Your task to perform on an android device: Check the weather Image 0: 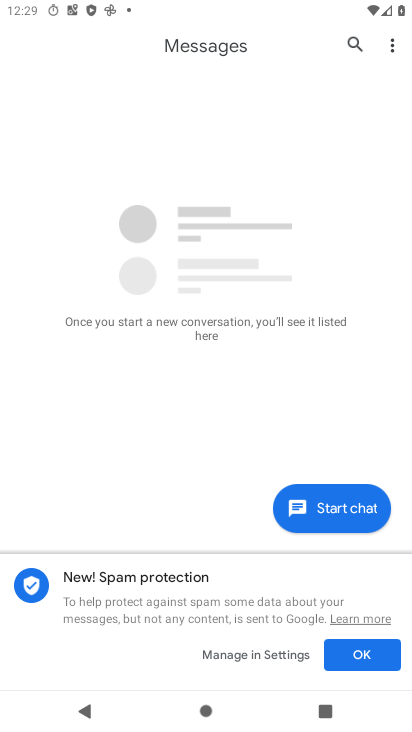
Step 0: press home button
Your task to perform on an android device: Check the weather Image 1: 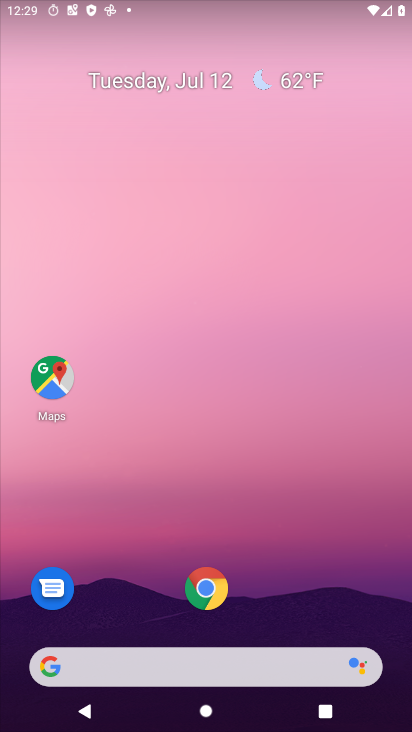
Step 1: drag from (262, 611) to (216, 280)
Your task to perform on an android device: Check the weather Image 2: 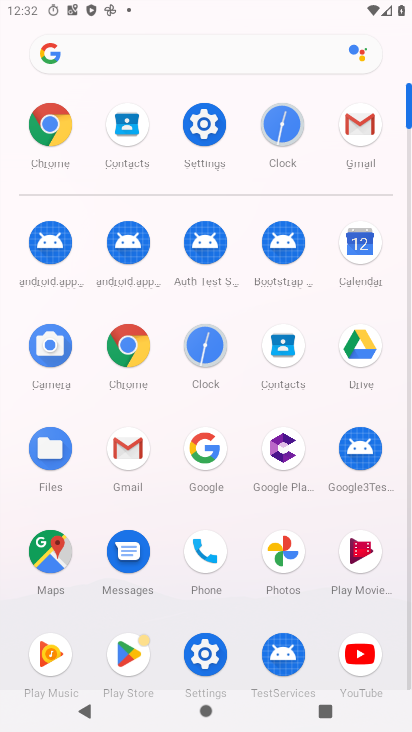
Step 2: click (199, 446)
Your task to perform on an android device: Check the weather Image 3: 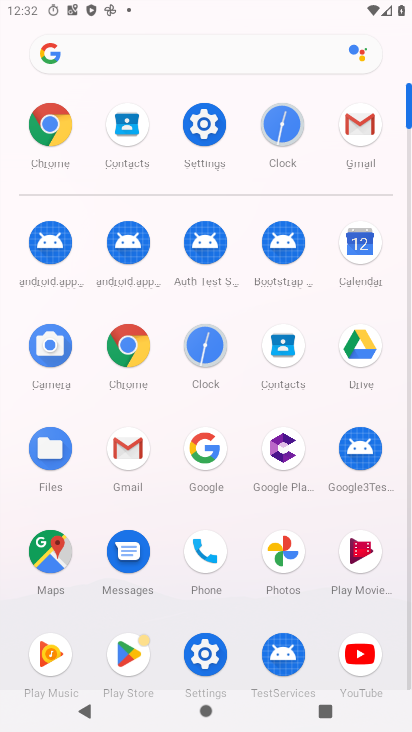
Step 3: click (200, 469)
Your task to perform on an android device: Check the weather Image 4: 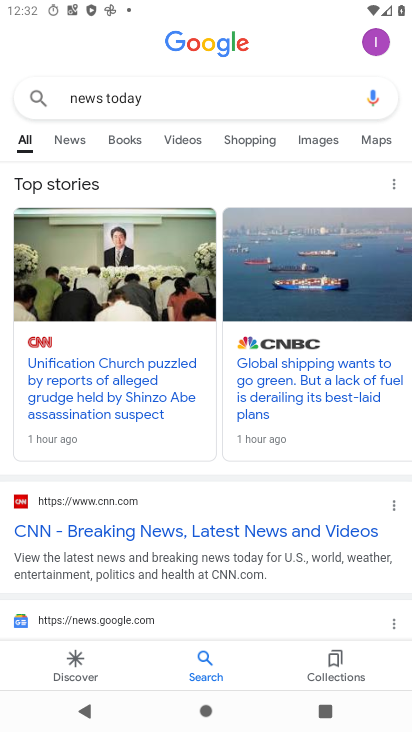
Step 4: click (161, 110)
Your task to perform on an android device: Check the weather Image 5: 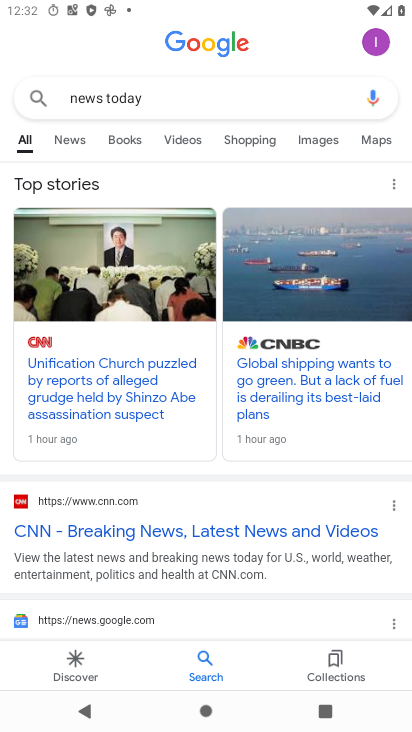
Step 5: click (161, 110)
Your task to perform on an android device: Check the weather Image 6: 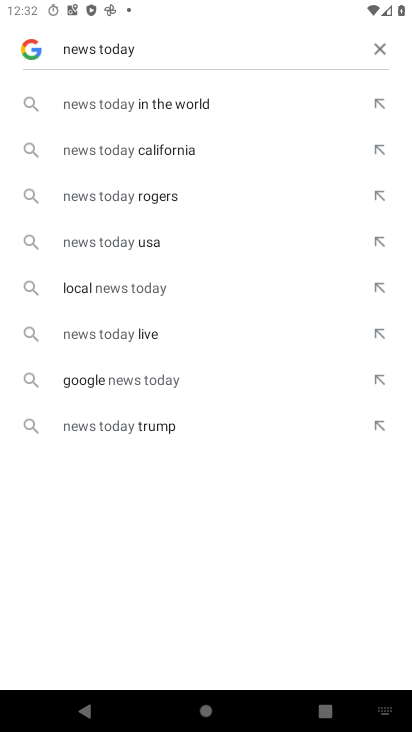
Step 6: click (378, 46)
Your task to perform on an android device: Check the weather Image 7: 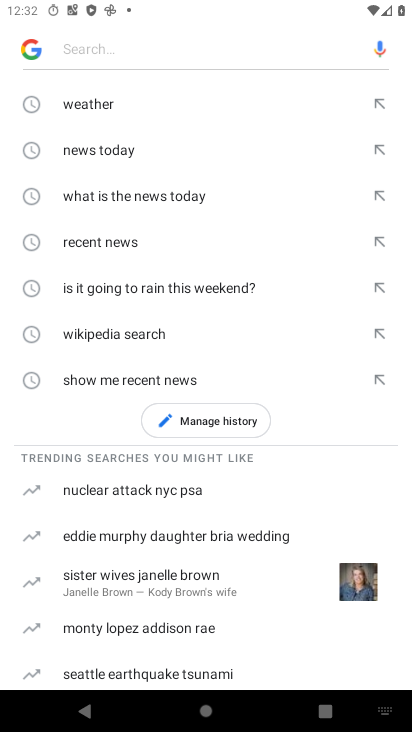
Step 7: click (120, 107)
Your task to perform on an android device: Check the weather Image 8: 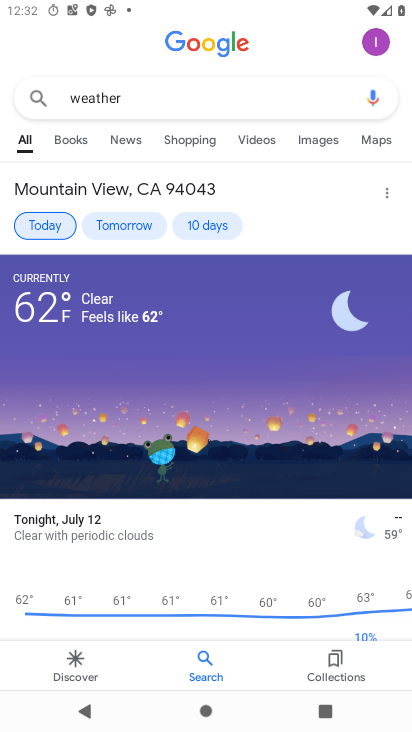
Step 8: task complete